Your task to perform on an android device: Show the shopping cart on amazon.com. Search for "apple airpods" on amazon.com, select the first entry, and add it to the cart. Image 0: 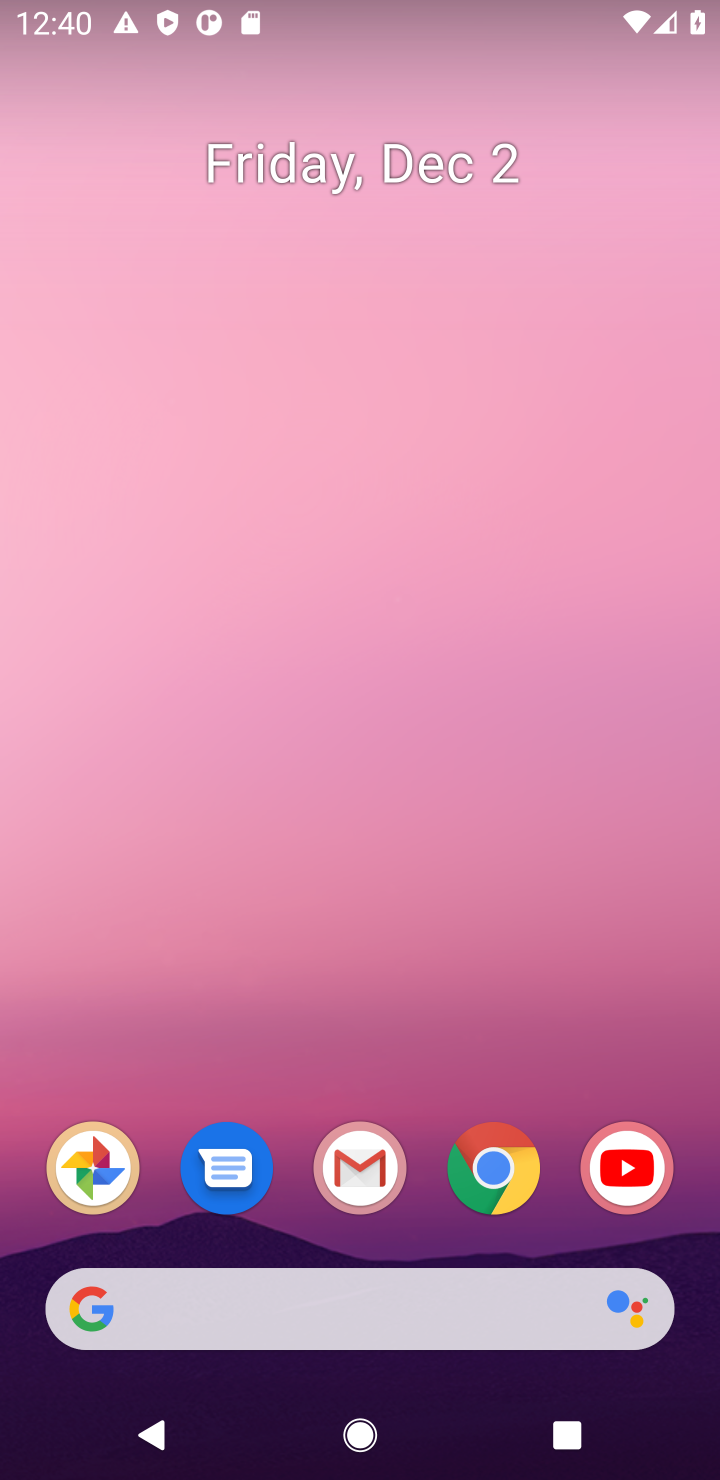
Step 0: click (96, 1312)
Your task to perform on an android device: Show the shopping cart on amazon.com. Search for "apple airpods" on amazon.com, select the first entry, and add it to the cart. Image 1: 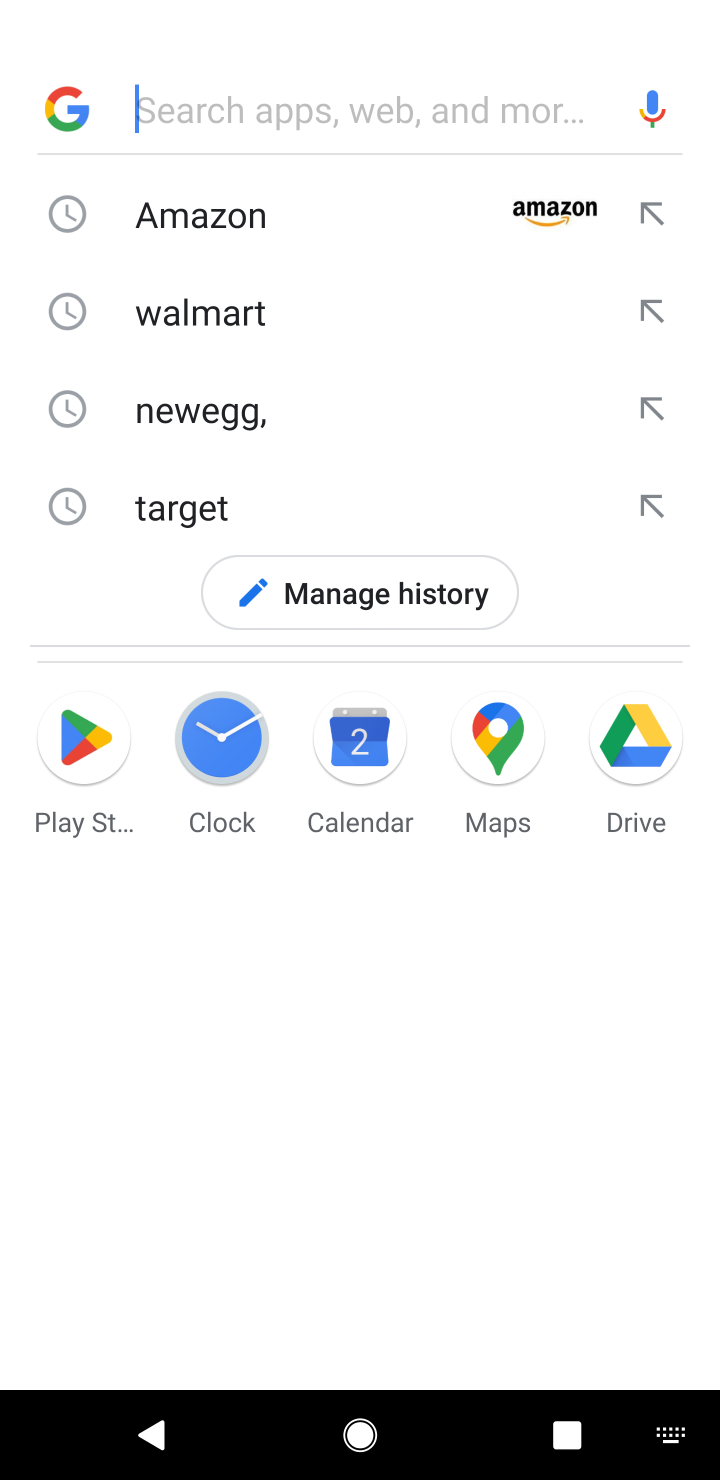
Step 1: click (225, 211)
Your task to perform on an android device: Show the shopping cart on amazon.com. Search for "apple airpods" on amazon.com, select the first entry, and add it to the cart. Image 2: 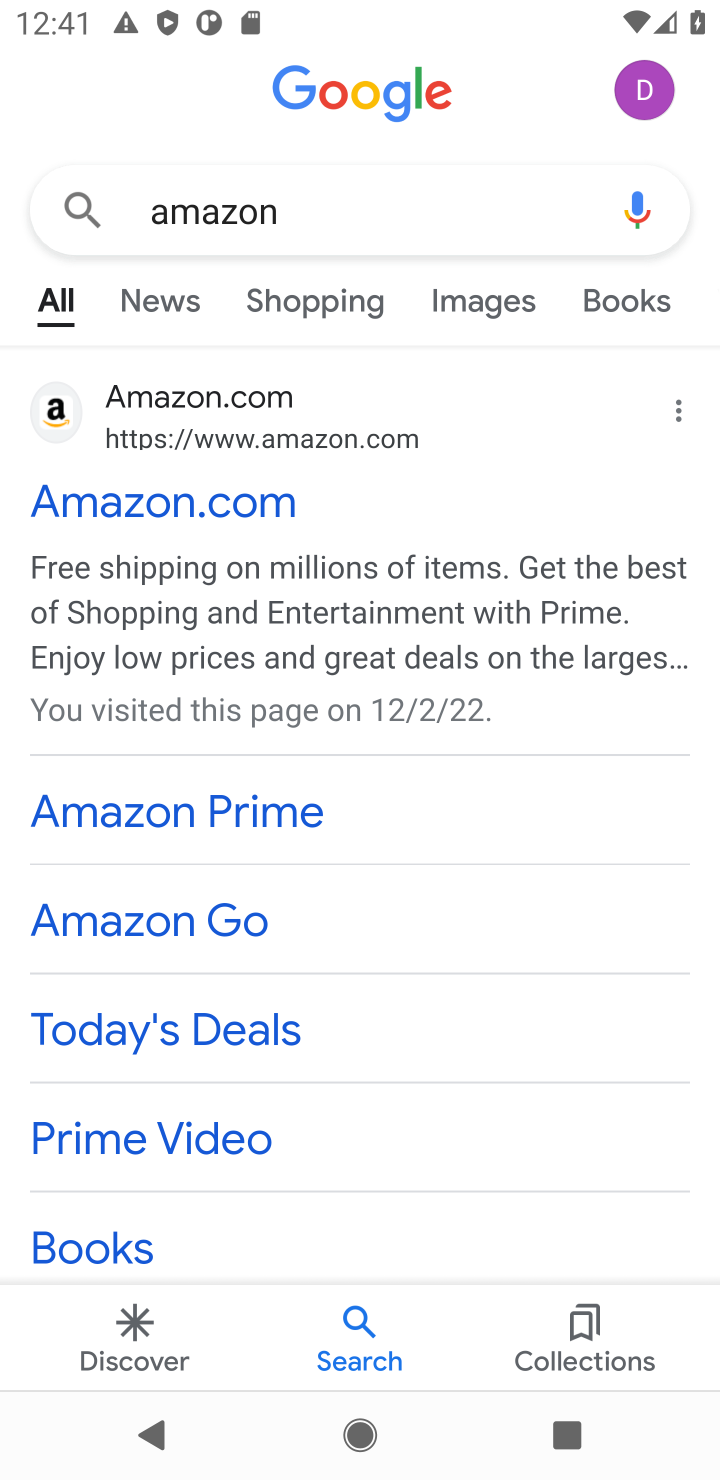
Step 2: click (185, 497)
Your task to perform on an android device: Show the shopping cart on amazon.com. Search for "apple airpods" on amazon.com, select the first entry, and add it to the cart. Image 3: 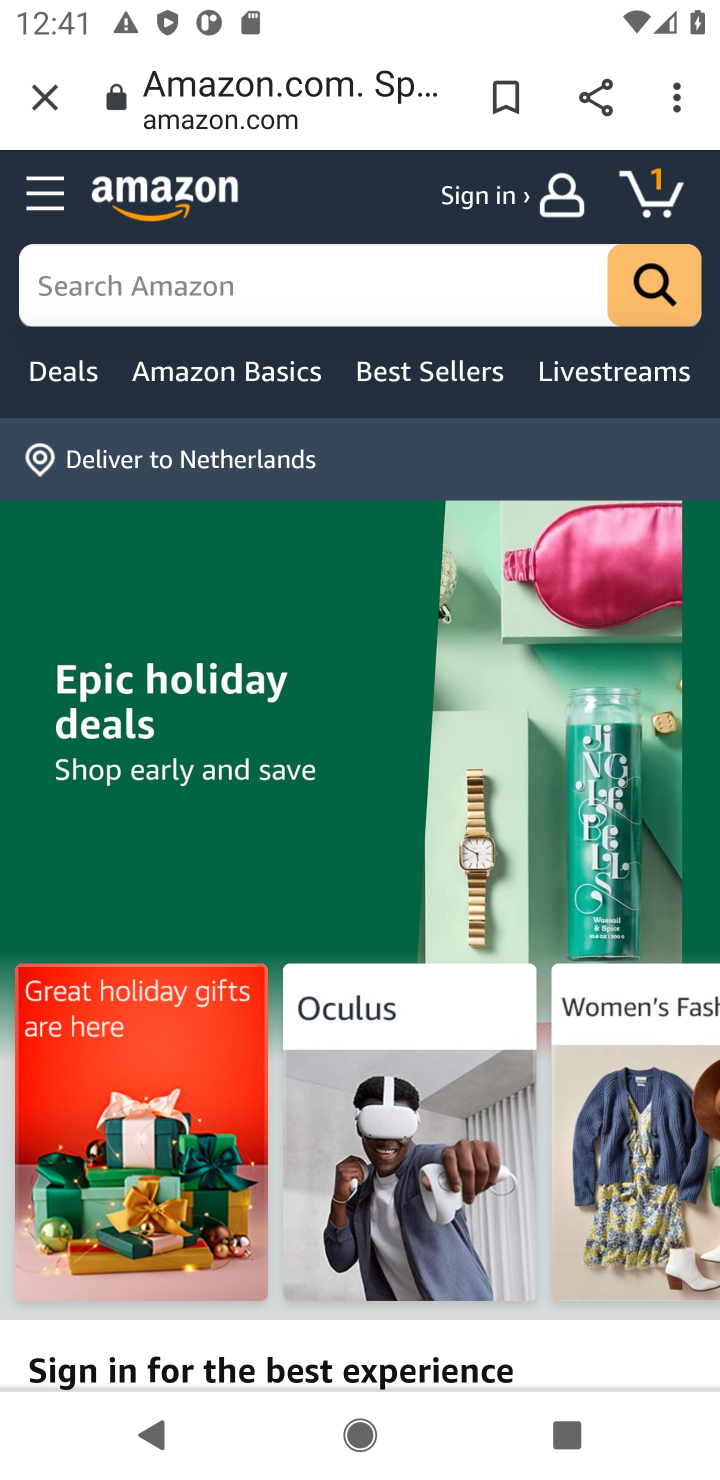
Step 3: click (491, 290)
Your task to perform on an android device: Show the shopping cart on amazon.com. Search for "apple airpods" on amazon.com, select the first entry, and add it to the cart. Image 4: 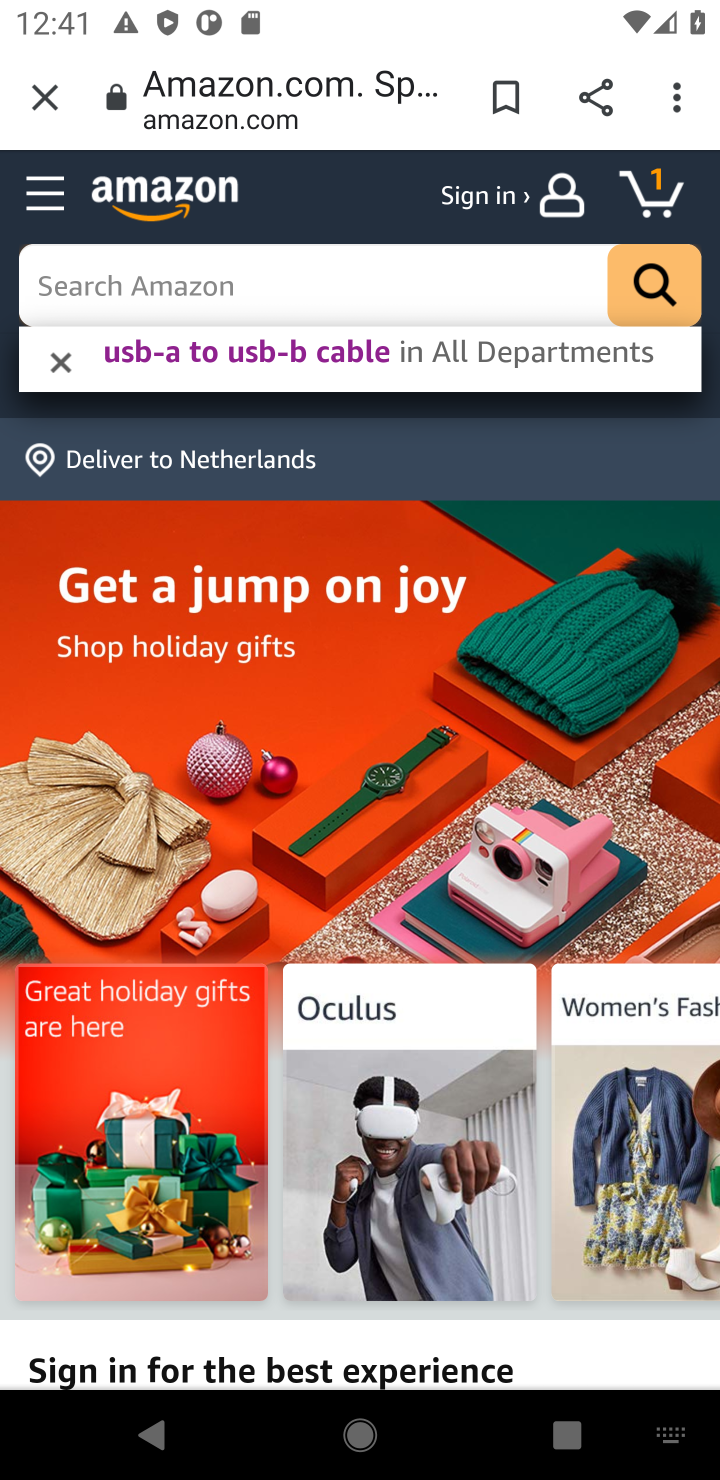
Step 4: click (491, 290)
Your task to perform on an android device: Show the shopping cart on amazon.com. Search for "apple airpods" on amazon.com, select the first entry, and add it to the cart. Image 5: 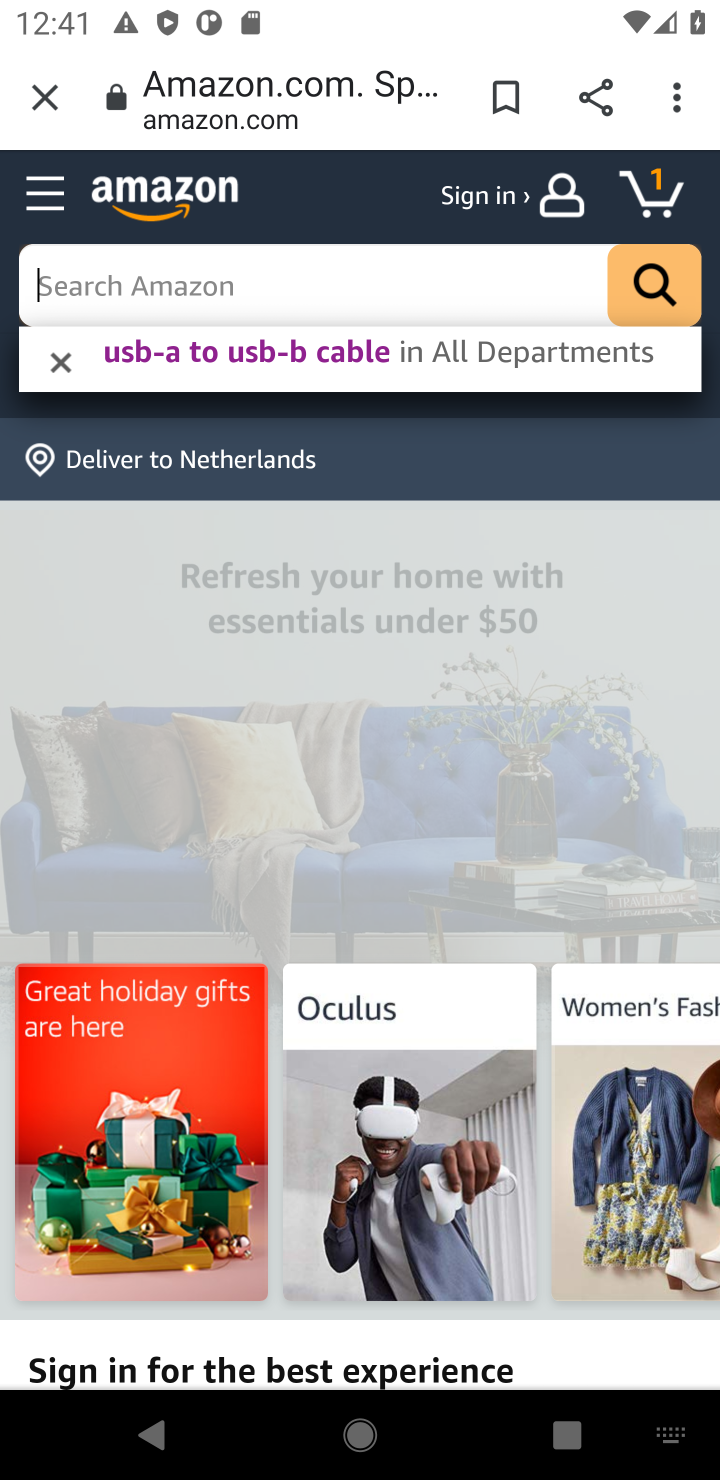
Step 5: click (491, 290)
Your task to perform on an android device: Show the shopping cart on amazon.com. Search for "apple airpods" on amazon.com, select the first entry, and add it to the cart. Image 6: 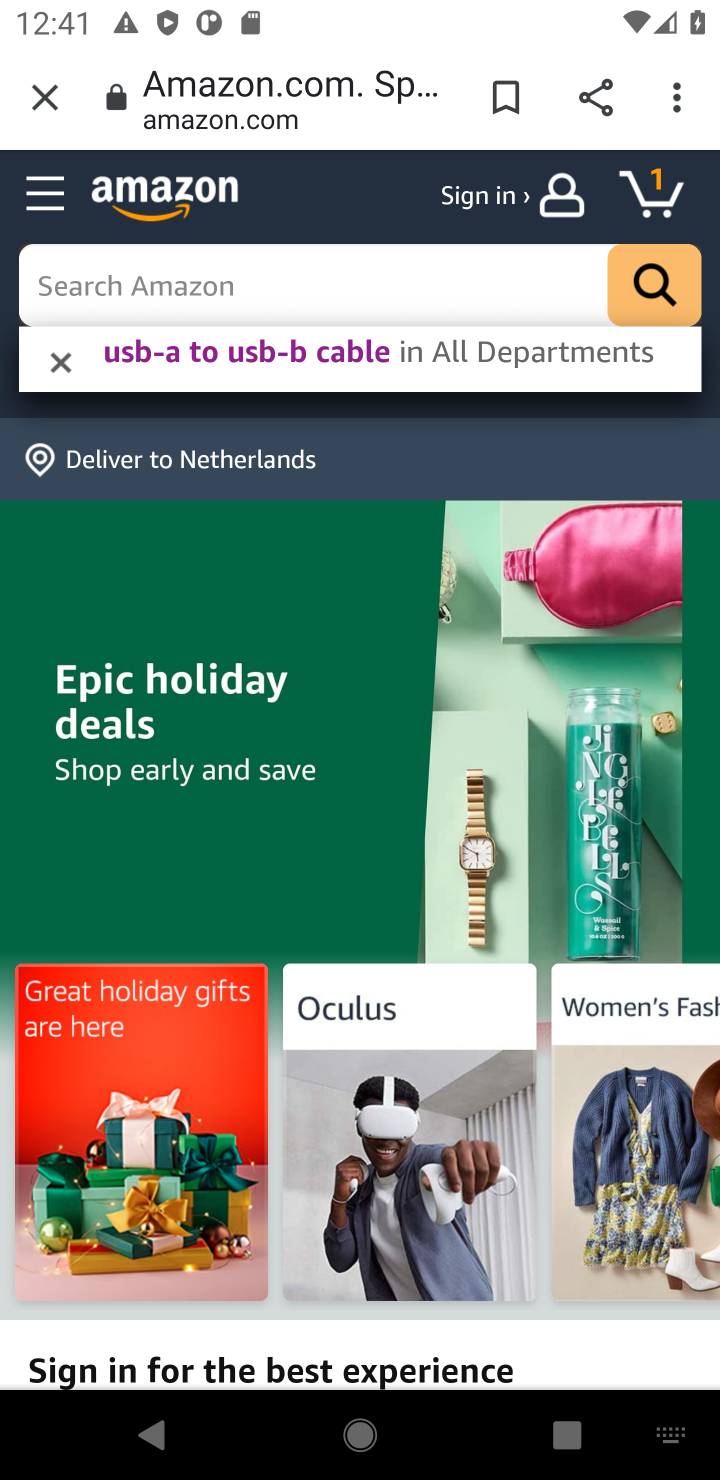
Step 6: type "apple airpods"
Your task to perform on an android device: Show the shopping cart on amazon.com. Search for "apple airpods" on amazon.com, select the first entry, and add it to the cart. Image 7: 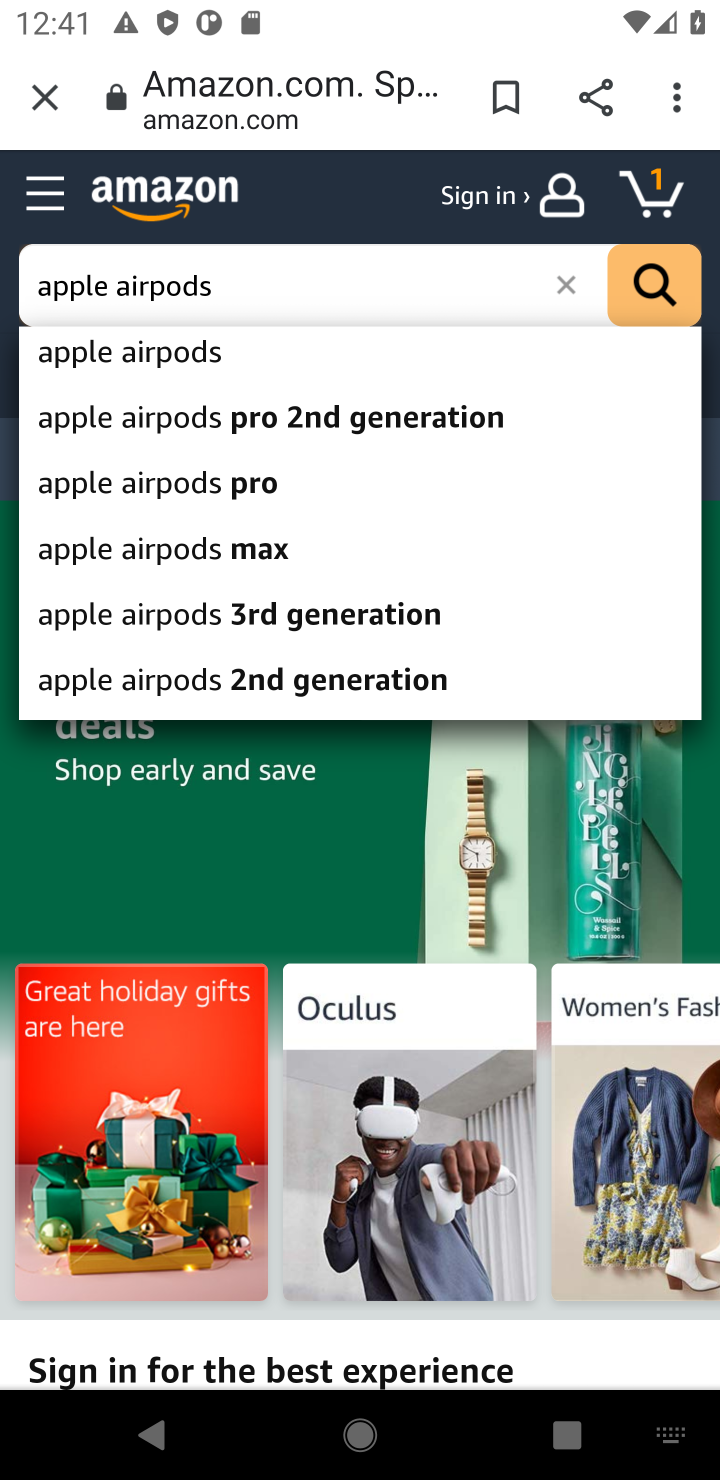
Step 7: click (152, 360)
Your task to perform on an android device: Show the shopping cart on amazon.com. Search for "apple airpods" on amazon.com, select the first entry, and add it to the cart. Image 8: 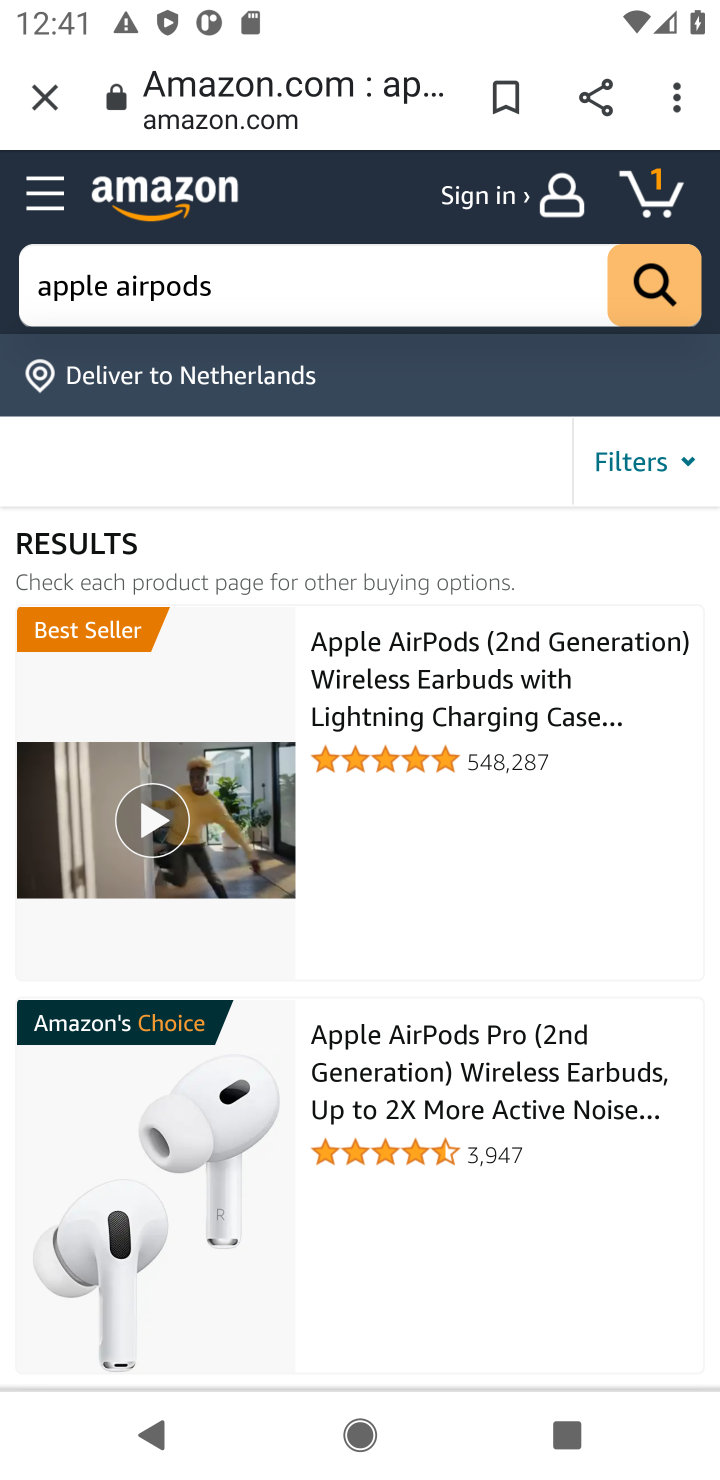
Step 8: click (334, 703)
Your task to perform on an android device: Show the shopping cart on amazon.com. Search for "apple airpods" on amazon.com, select the first entry, and add it to the cart. Image 9: 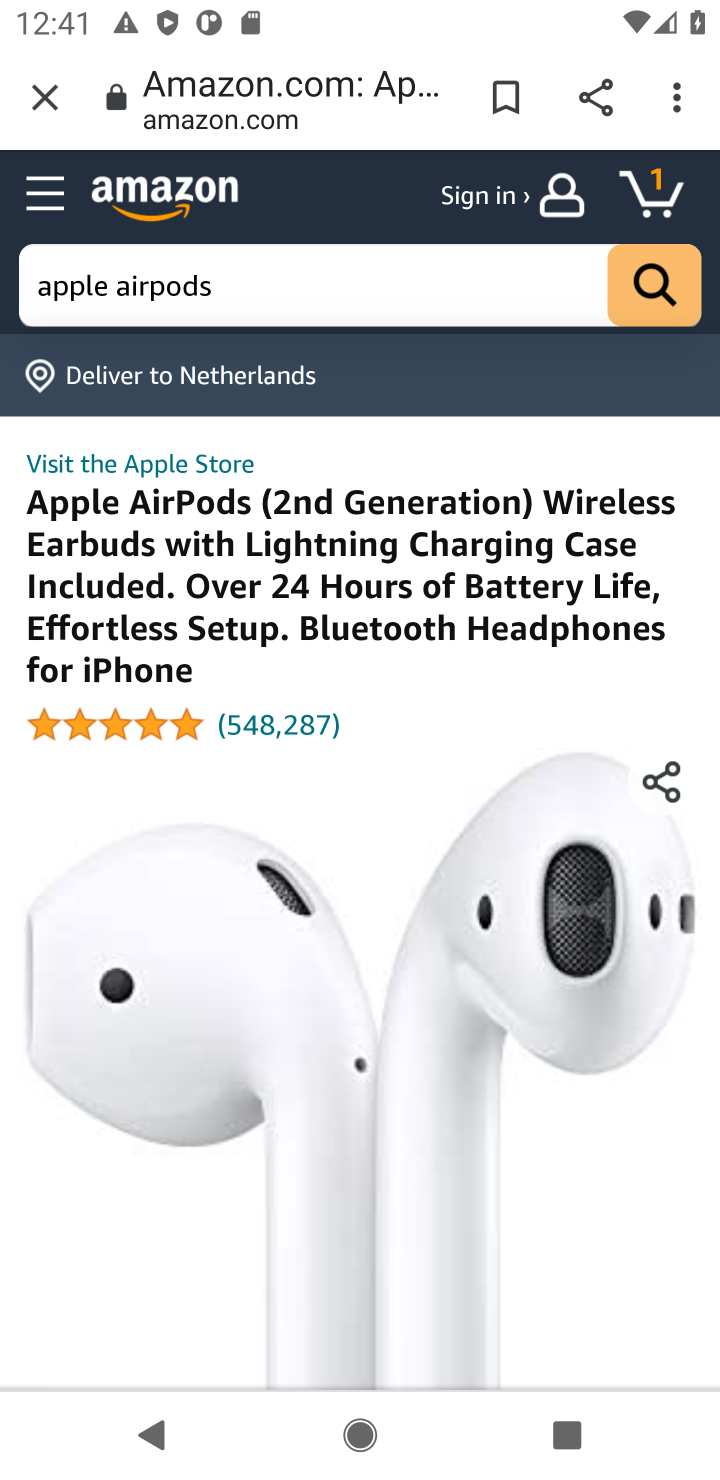
Step 9: drag from (403, 1293) to (318, 578)
Your task to perform on an android device: Show the shopping cart on amazon.com. Search for "apple airpods" on amazon.com, select the first entry, and add it to the cart. Image 10: 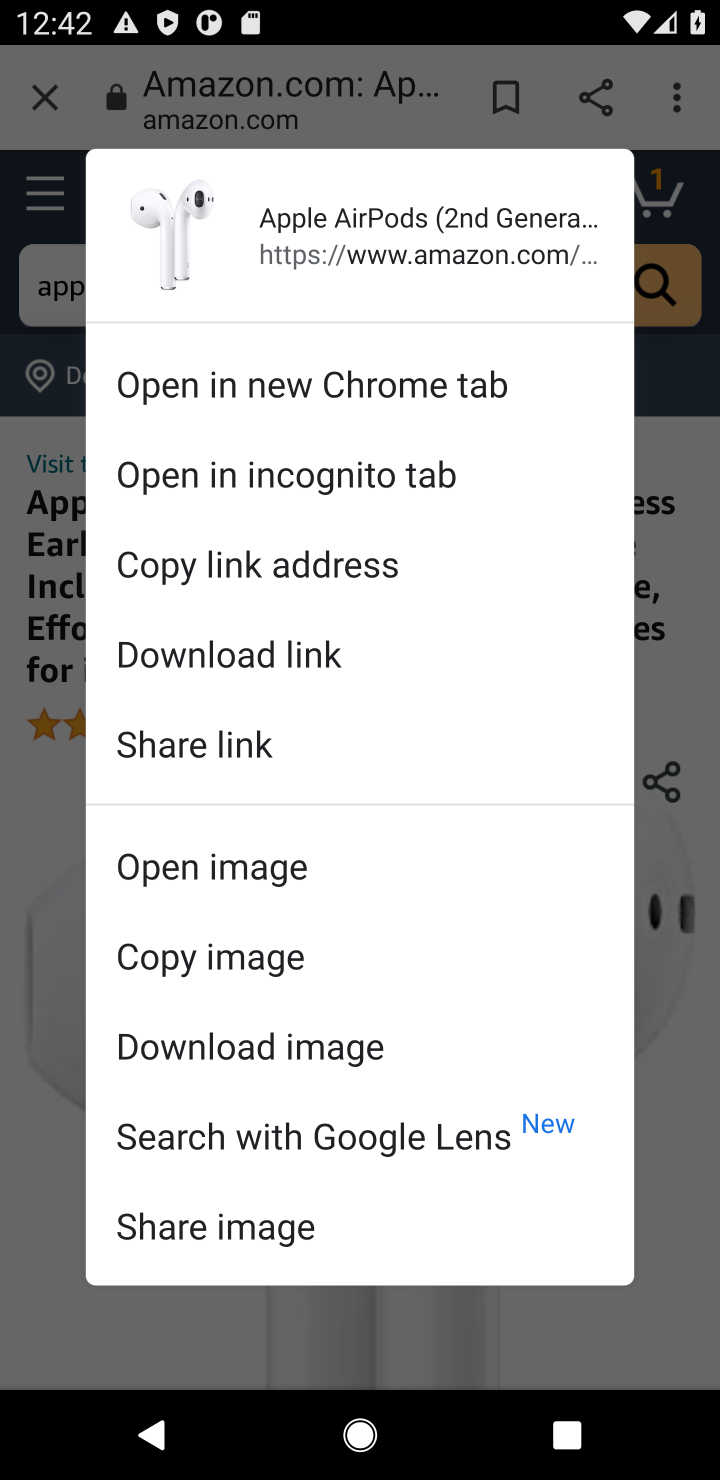
Step 10: click (623, 1289)
Your task to perform on an android device: Show the shopping cart on amazon.com. Search for "apple airpods" on amazon.com, select the first entry, and add it to the cart. Image 11: 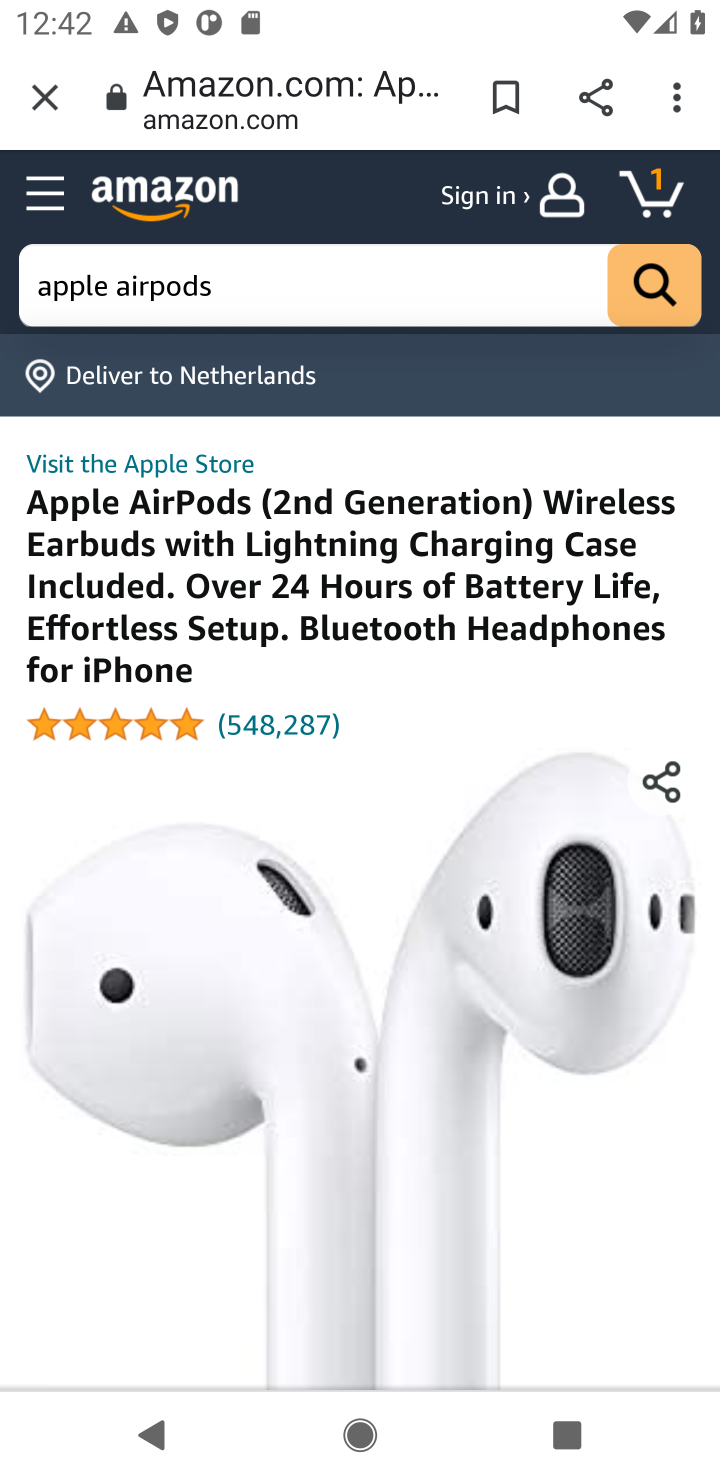
Step 11: drag from (339, 1308) to (210, 392)
Your task to perform on an android device: Show the shopping cart on amazon.com. Search for "apple airpods" on amazon.com, select the first entry, and add it to the cart. Image 12: 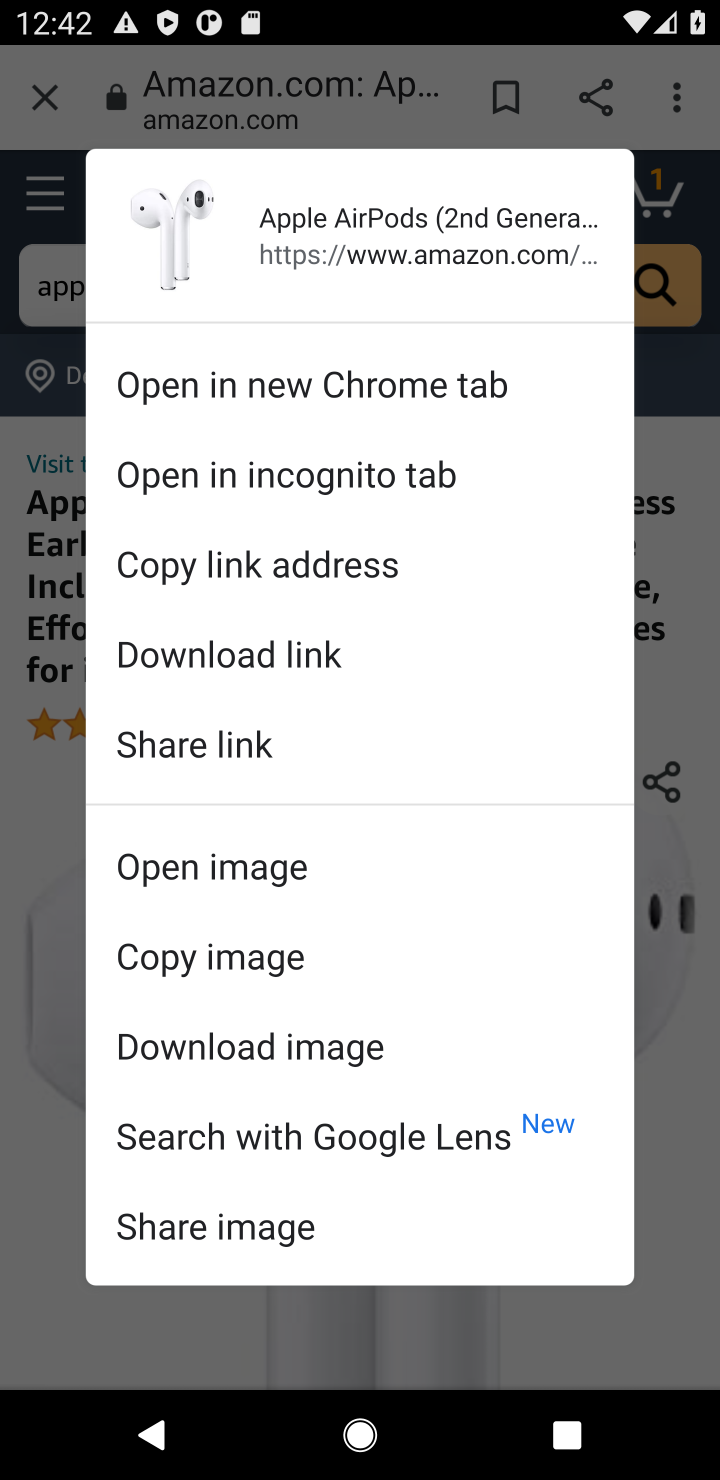
Step 12: click (67, 1330)
Your task to perform on an android device: Show the shopping cart on amazon.com. Search for "apple airpods" on amazon.com, select the first entry, and add it to the cart. Image 13: 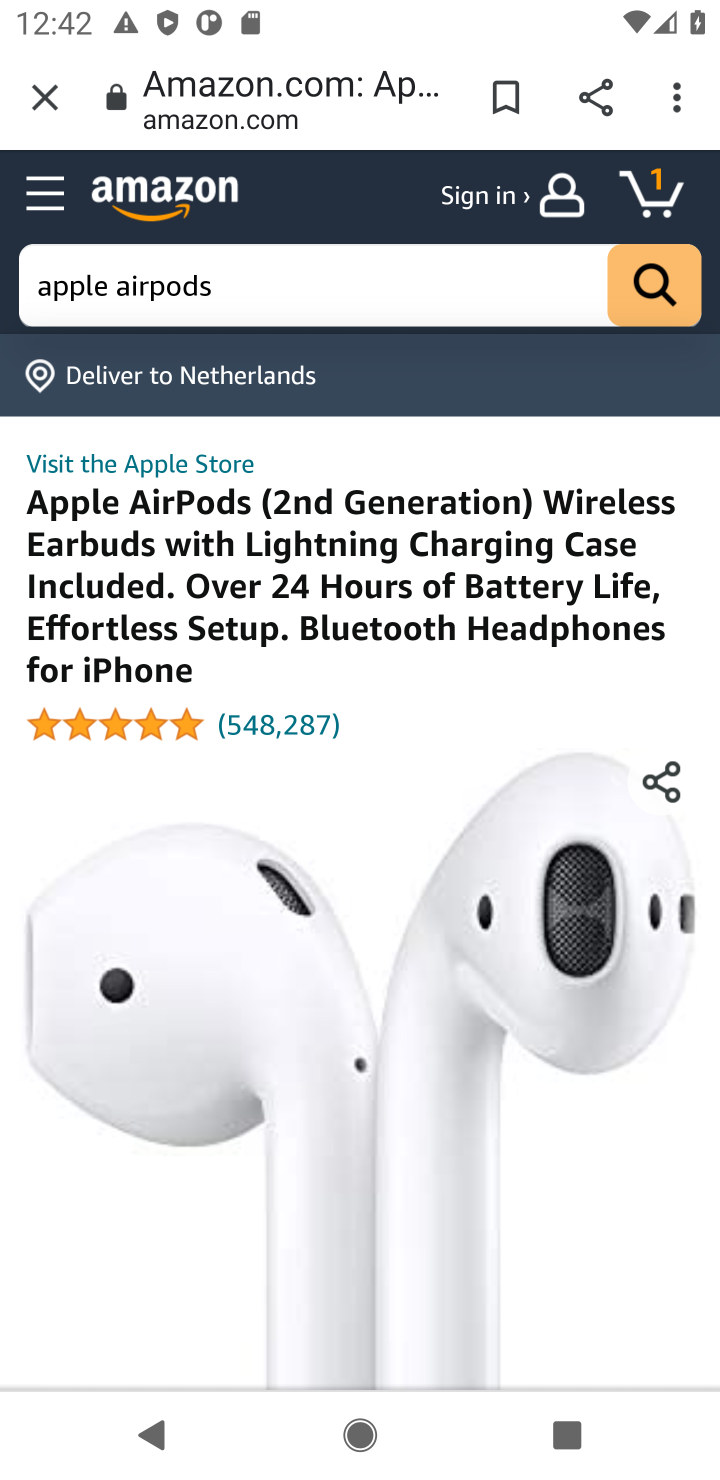
Step 13: drag from (518, 1172) to (422, 294)
Your task to perform on an android device: Show the shopping cart on amazon.com. Search for "apple airpods" on amazon.com, select the first entry, and add it to the cart. Image 14: 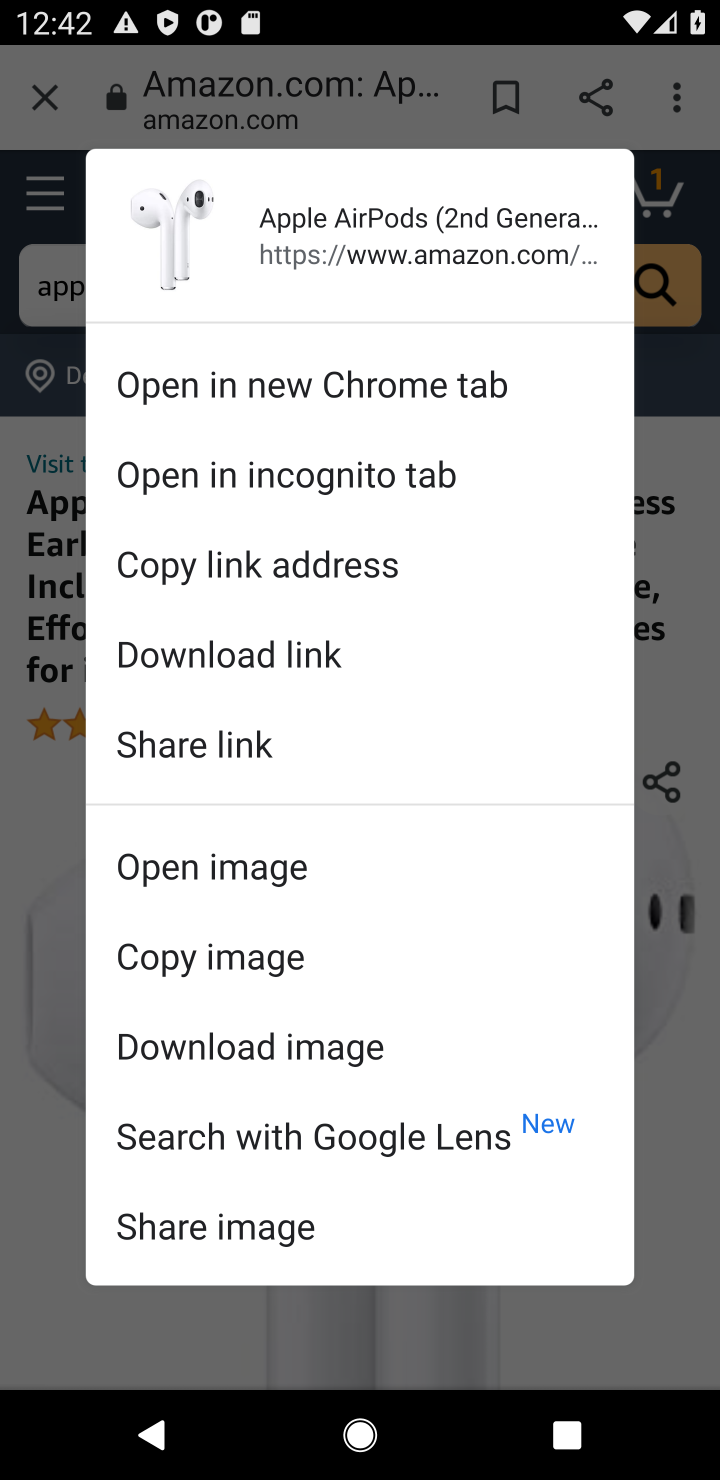
Step 14: click (420, 1327)
Your task to perform on an android device: Show the shopping cart on amazon.com. Search for "apple airpods" on amazon.com, select the first entry, and add it to the cart. Image 15: 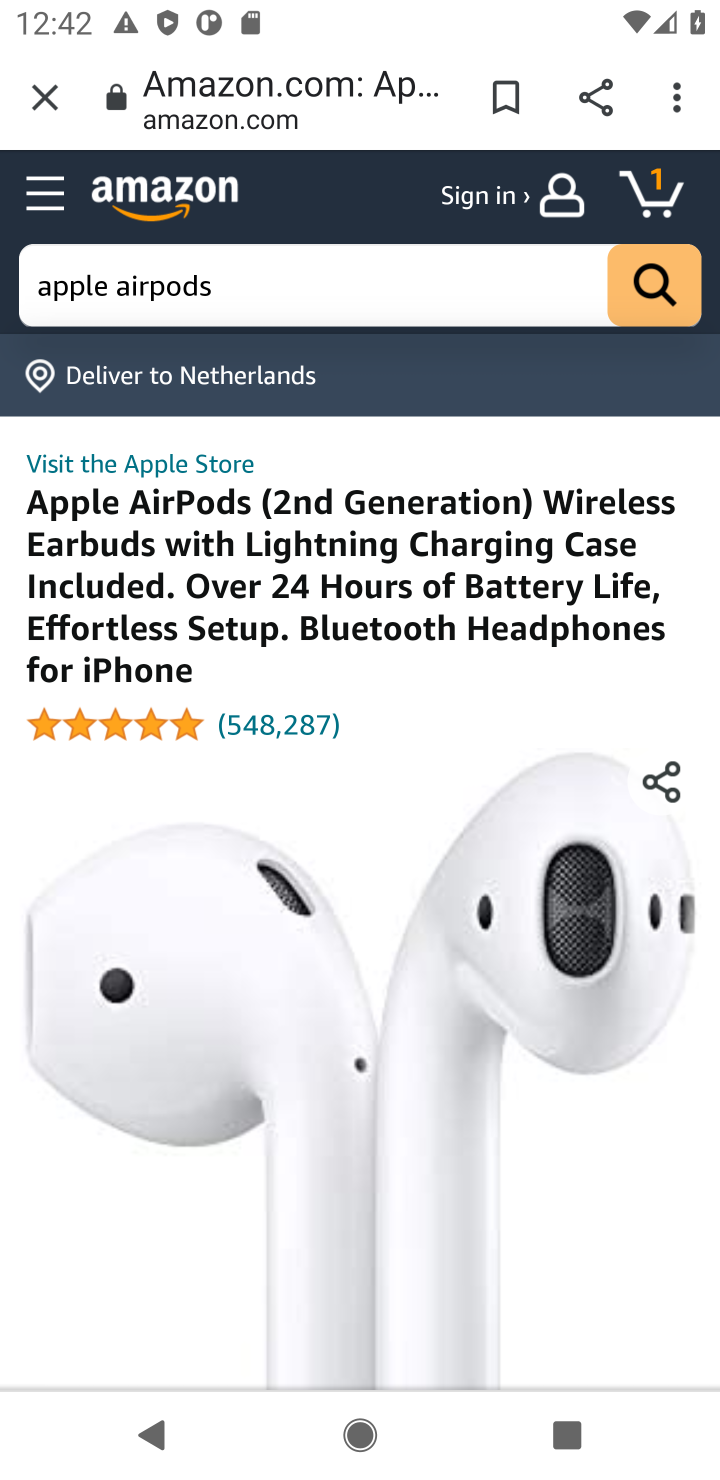
Step 15: drag from (663, 1312) to (440, 489)
Your task to perform on an android device: Show the shopping cart on amazon.com. Search for "apple airpods" on amazon.com, select the first entry, and add it to the cart. Image 16: 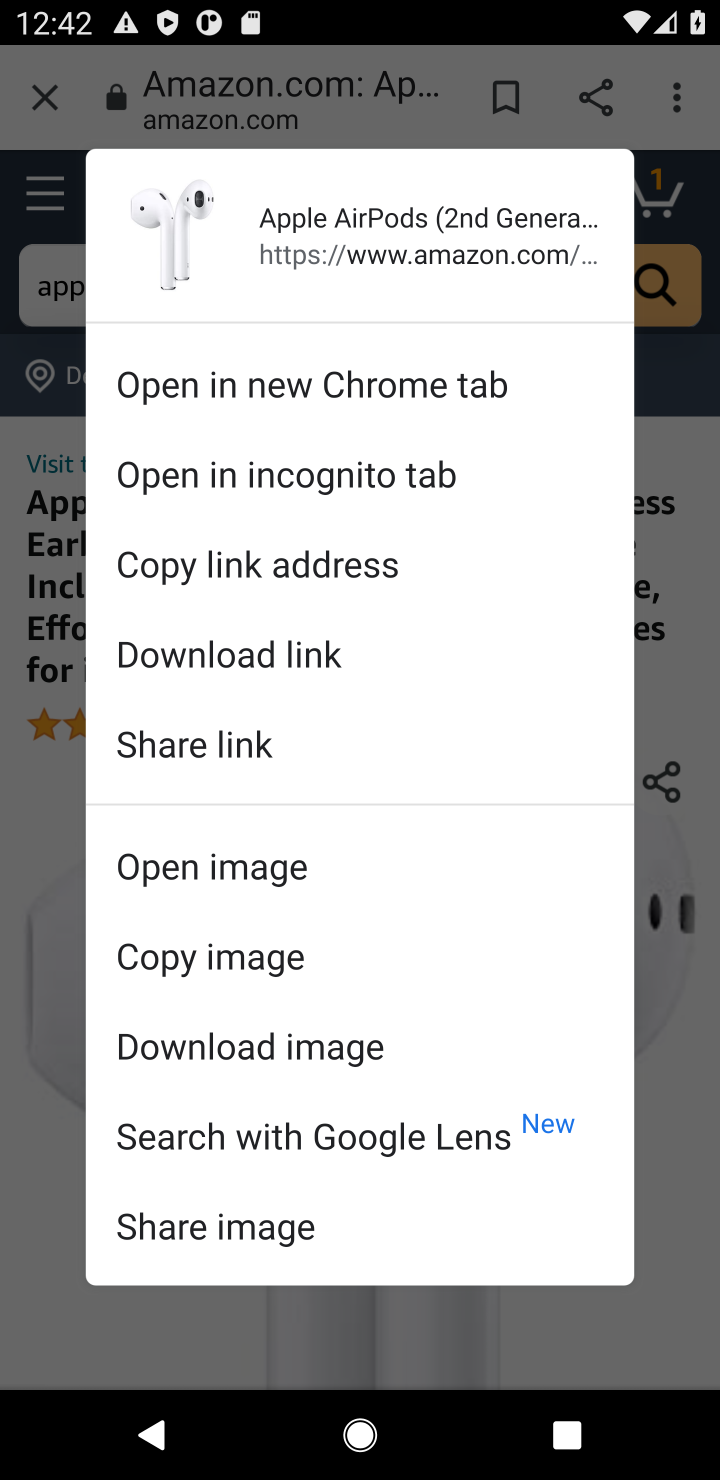
Step 16: click (679, 535)
Your task to perform on an android device: Show the shopping cart on amazon.com. Search for "apple airpods" on amazon.com, select the first entry, and add it to the cart. Image 17: 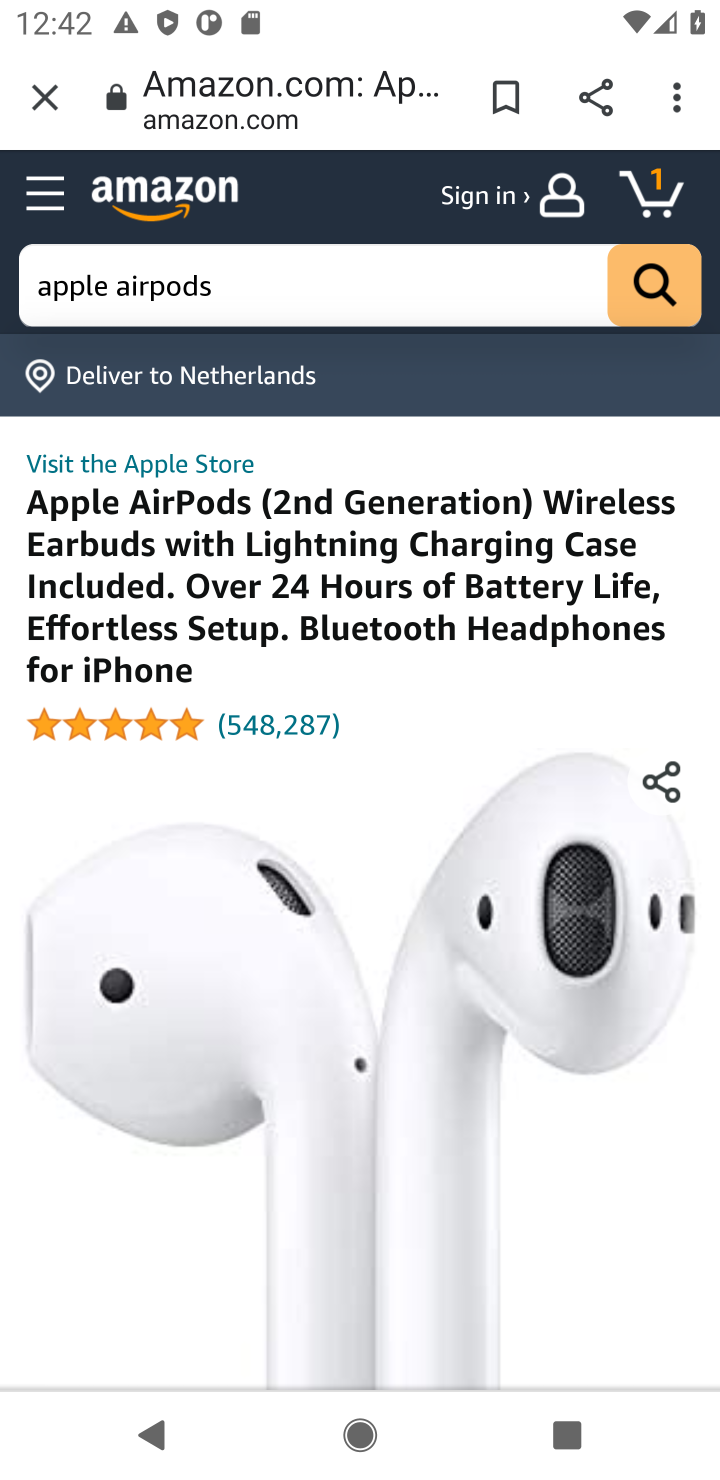
Step 17: drag from (492, 1208) to (404, 294)
Your task to perform on an android device: Show the shopping cart on amazon.com. Search for "apple airpods" on amazon.com, select the first entry, and add it to the cart. Image 18: 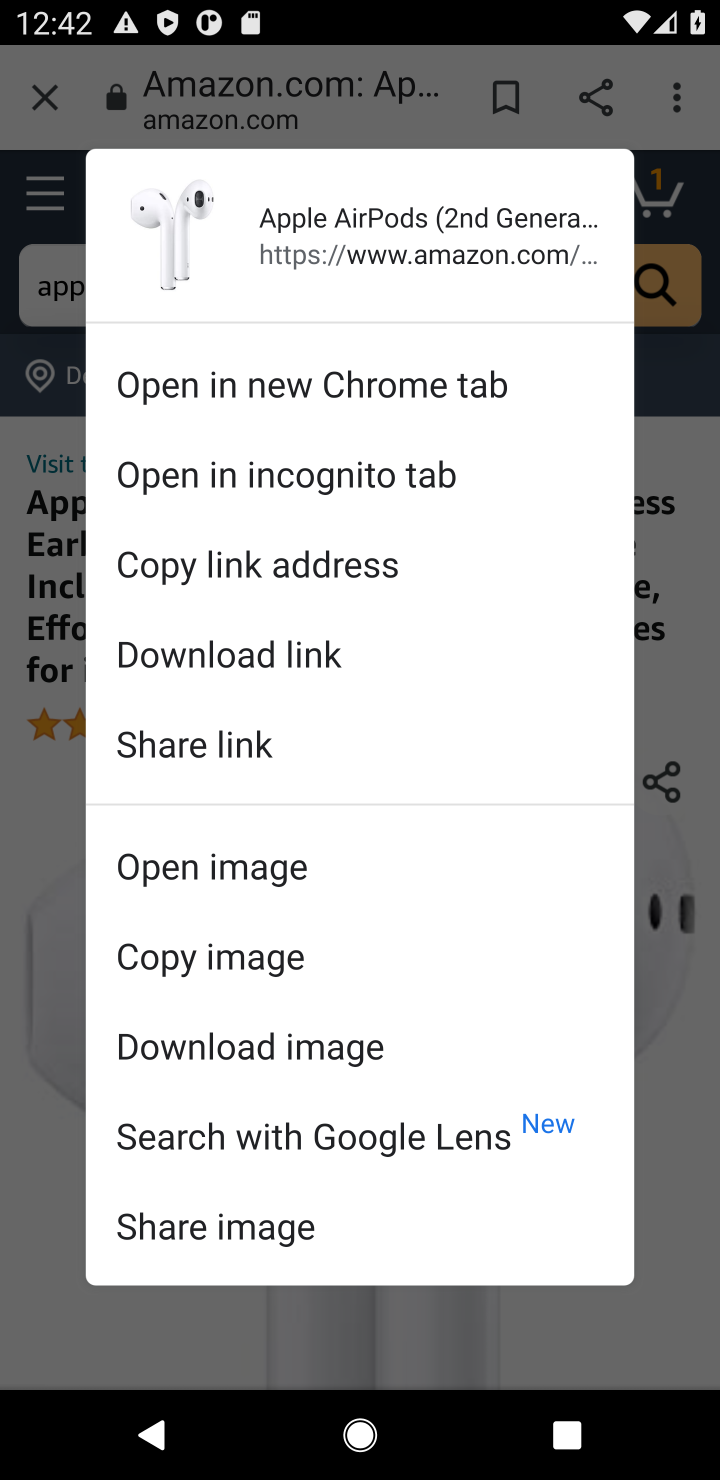
Step 18: click (683, 797)
Your task to perform on an android device: Show the shopping cart on amazon.com. Search for "apple airpods" on amazon.com, select the first entry, and add it to the cart. Image 19: 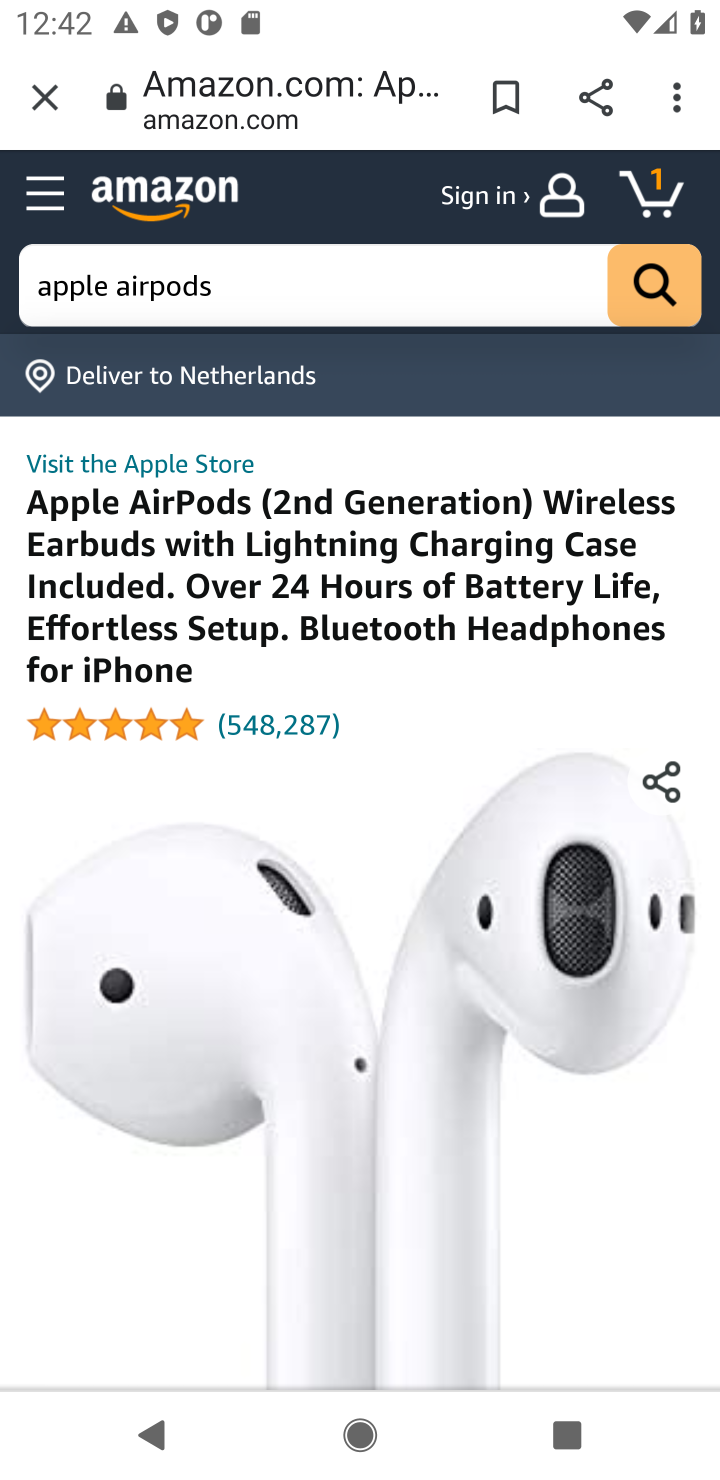
Step 19: task complete